Your task to perform on an android device: choose inbox layout in the gmail app Image 0: 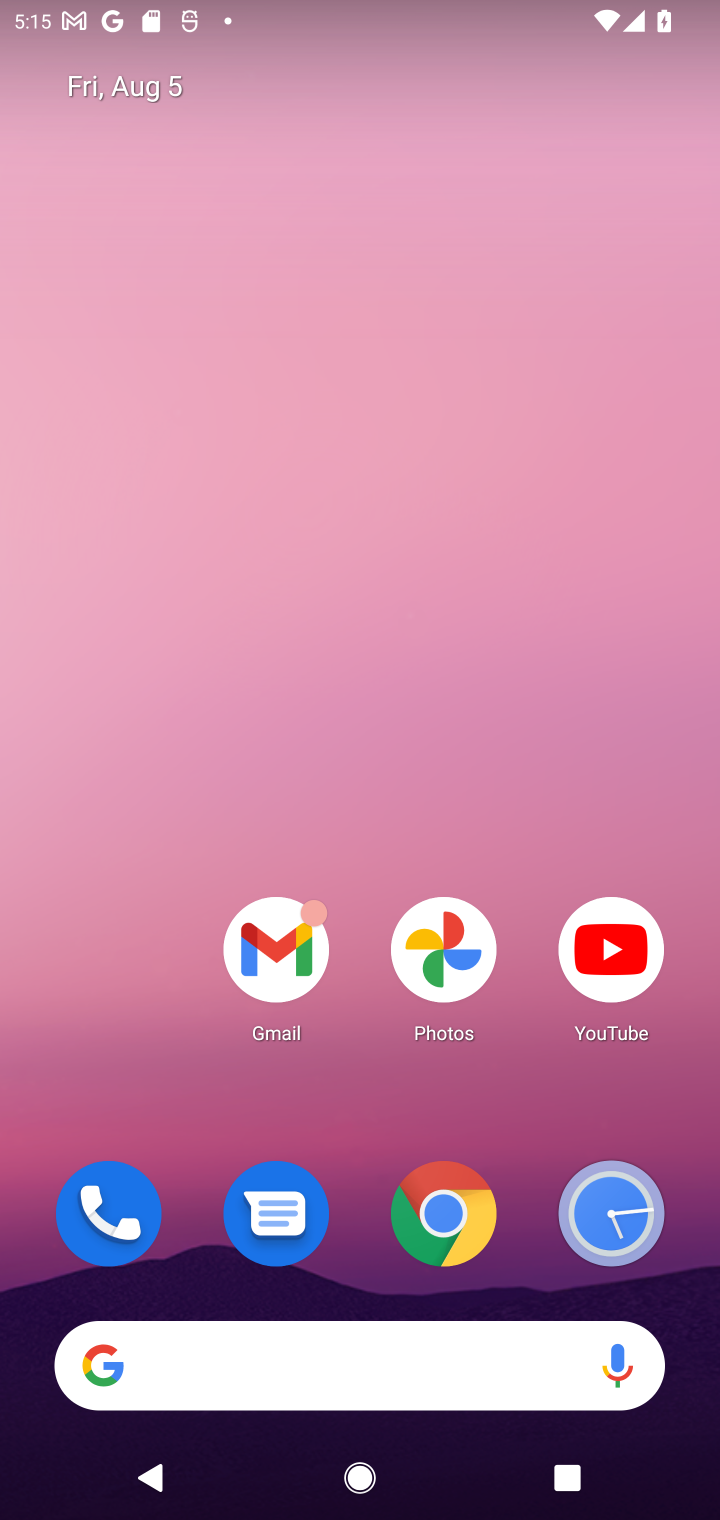
Step 0: click (242, 913)
Your task to perform on an android device: choose inbox layout in the gmail app Image 1: 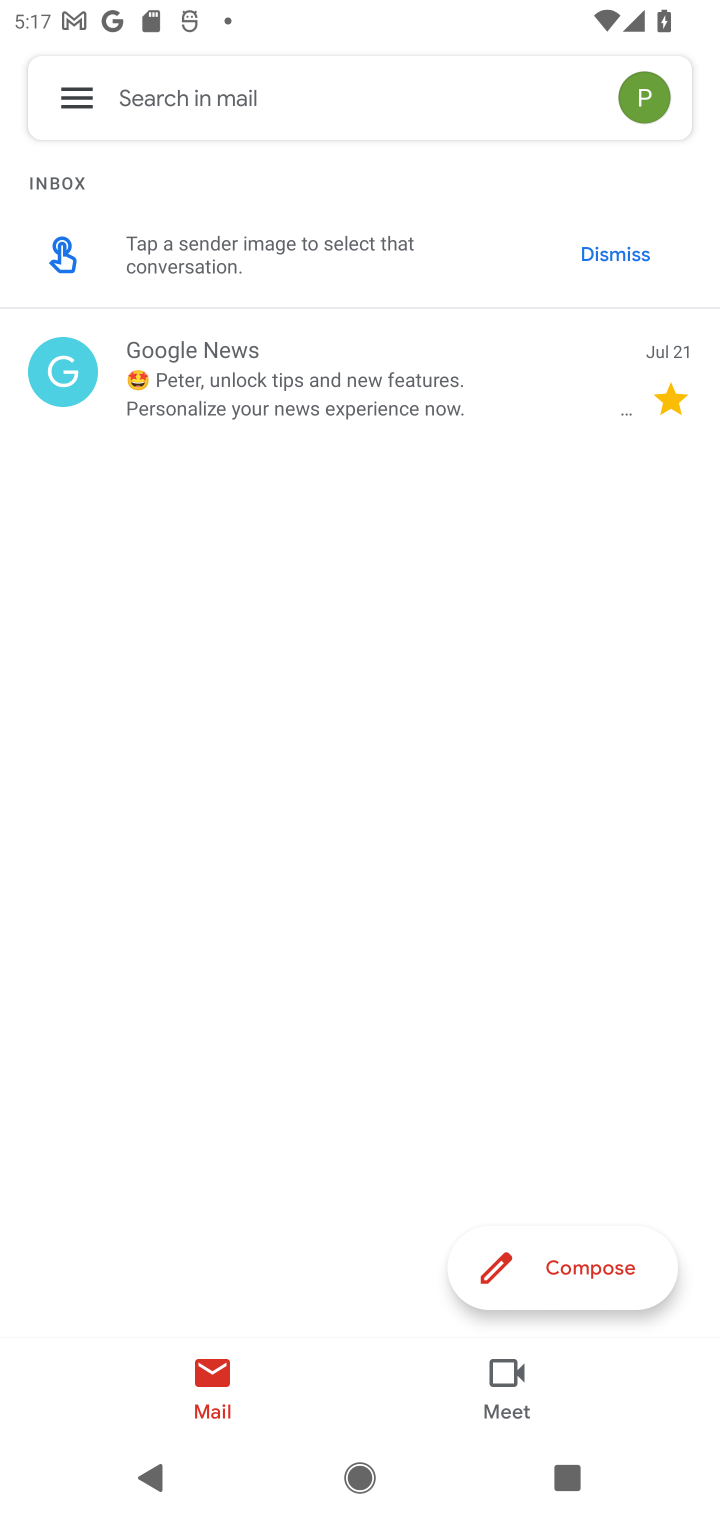
Step 1: click (72, 107)
Your task to perform on an android device: choose inbox layout in the gmail app Image 2: 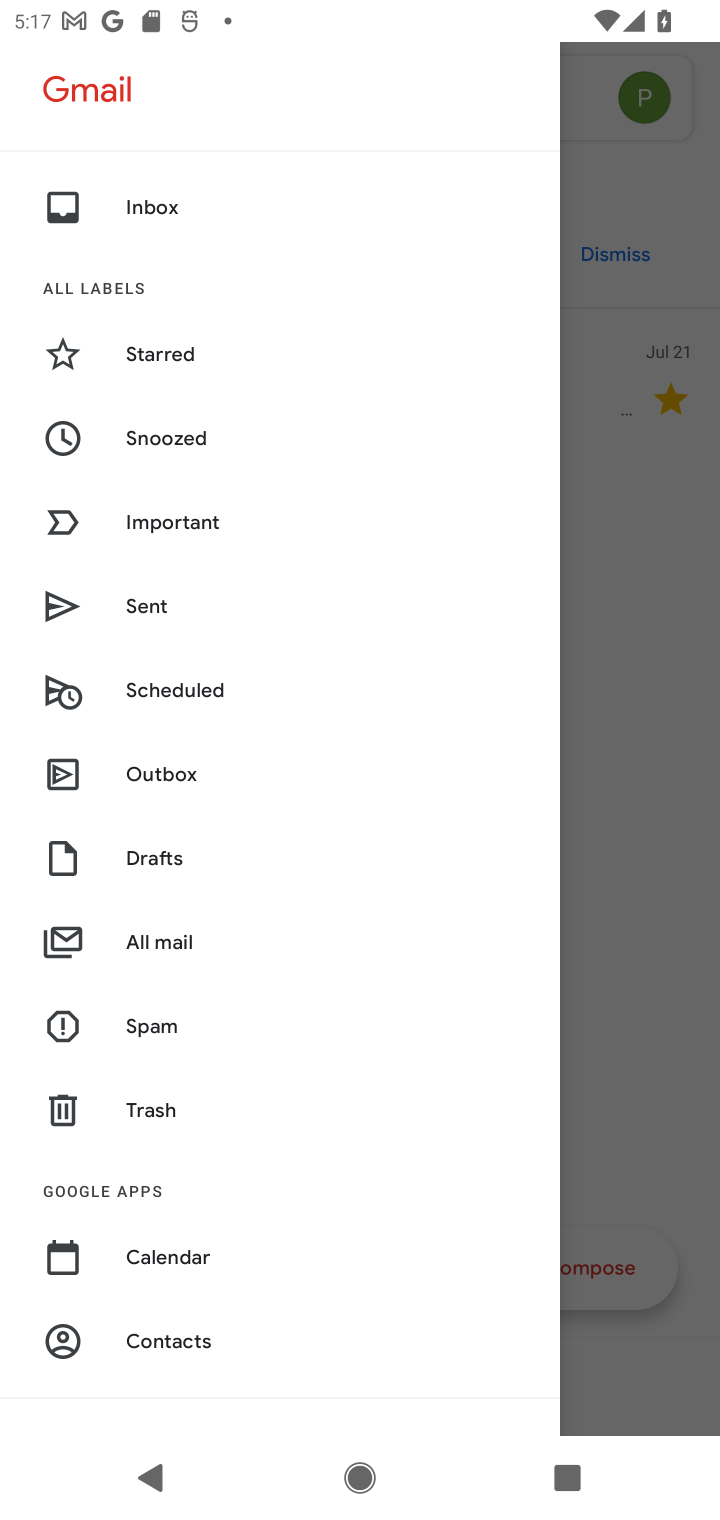
Step 2: task complete